Your task to perform on an android device: delete browsing data in the chrome app Image 0: 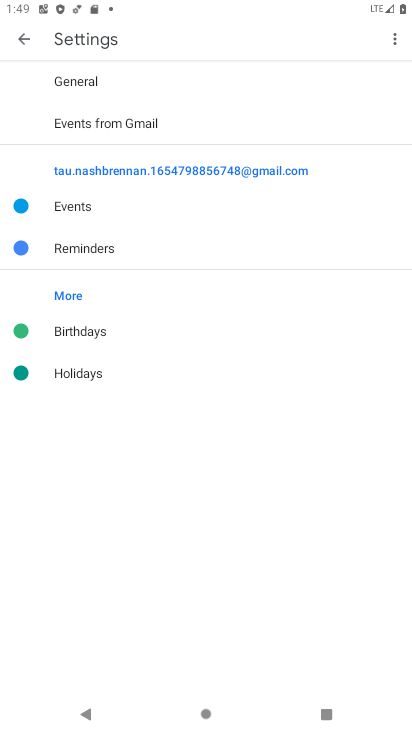
Step 0: press home button
Your task to perform on an android device: delete browsing data in the chrome app Image 1: 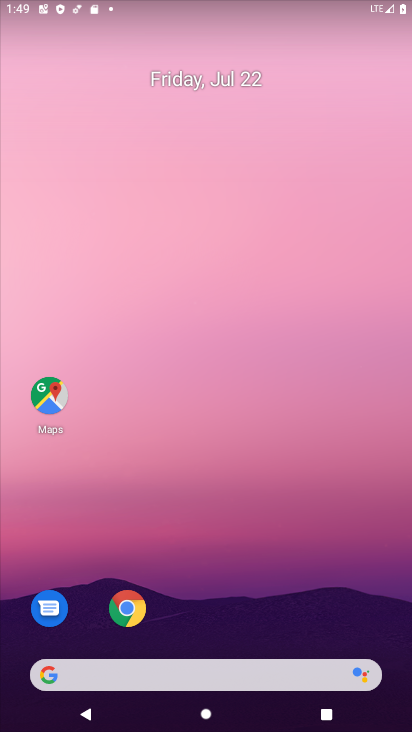
Step 1: drag from (249, 723) to (280, 152)
Your task to perform on an android device: delete browsing data in the chrome app Image 2: 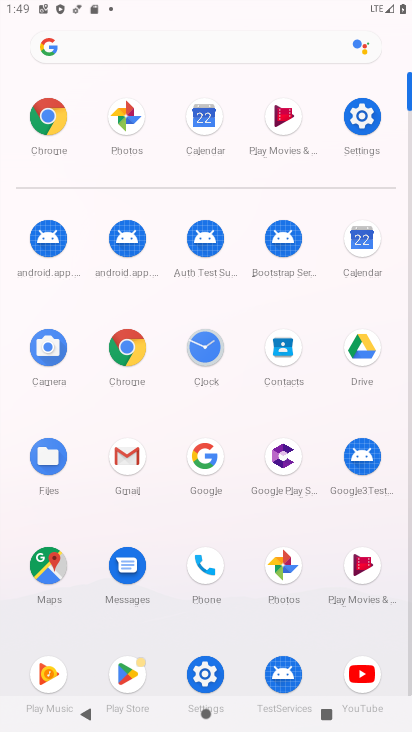
Step 2: click (123, 349)
Your task to perform on an android device: delete browsing data in the chrome app Image 3: 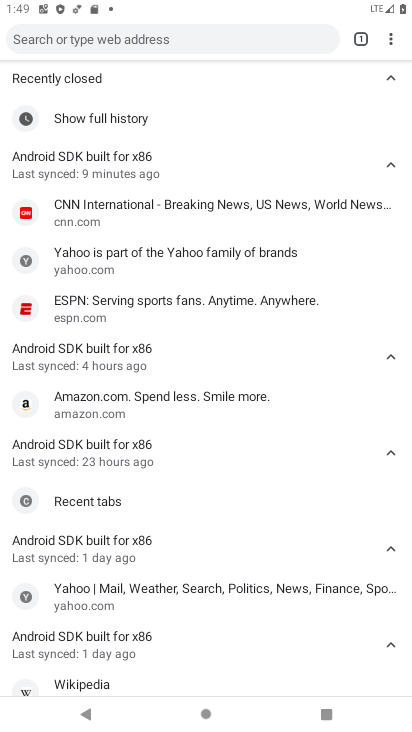
Step 3: click (388, 44)
Your task to perform on an android device: delete browsing data in the chrome app Image 4: 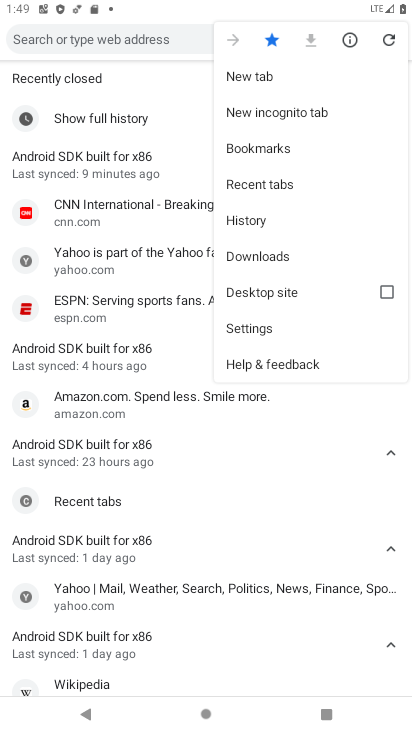
Step 4: click (254, 221)
Your task to perform on an android device: delete browsing data in the chrome app Image 5: 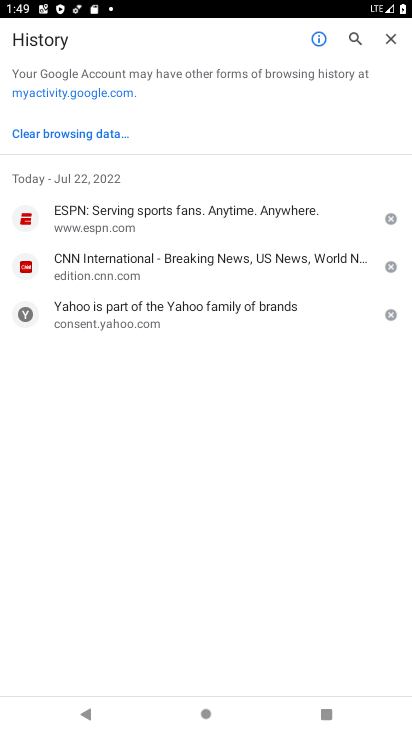
Step 5: click (70, 131)
Your task to perform on an android device: delete browsing data in the chrome app Image 6: 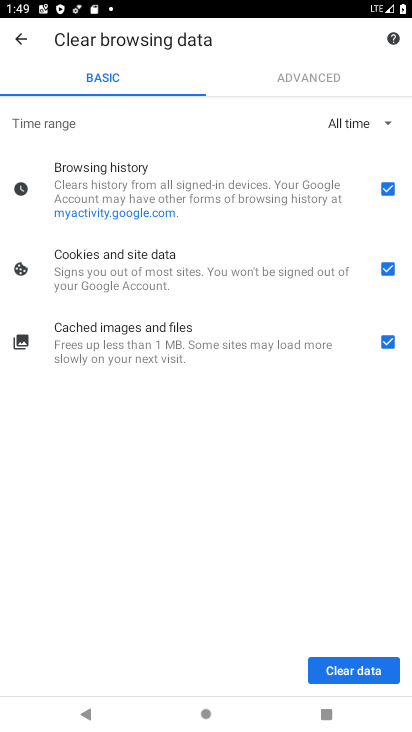
Step 6: click (386, 330)
Your task to perform on an android device: delete browsing data in the chrome app Image 7: 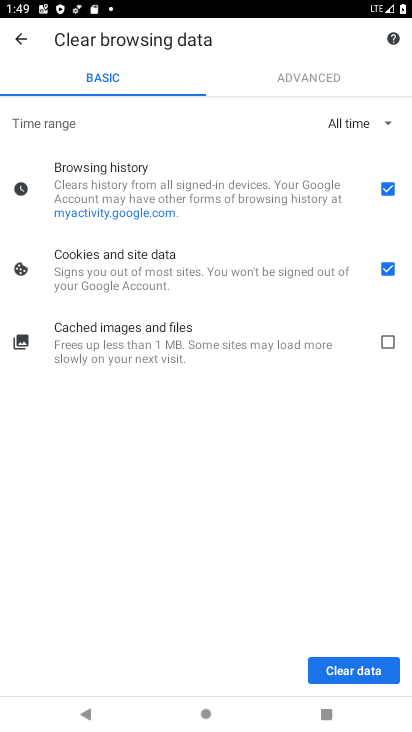
Step 7: click (386, 273)
Your task to perform on an android device: delete browsing data in the chrome app Image 8: 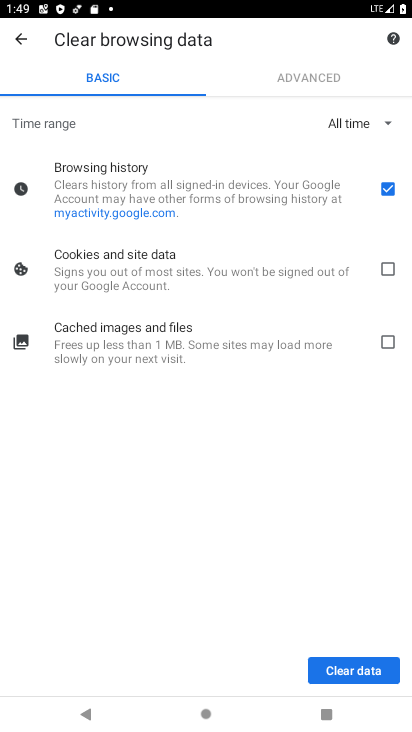
Step 8: click (361, 668)
Your task to perform on an android device: delete browsing data in the chrome app Image 9: 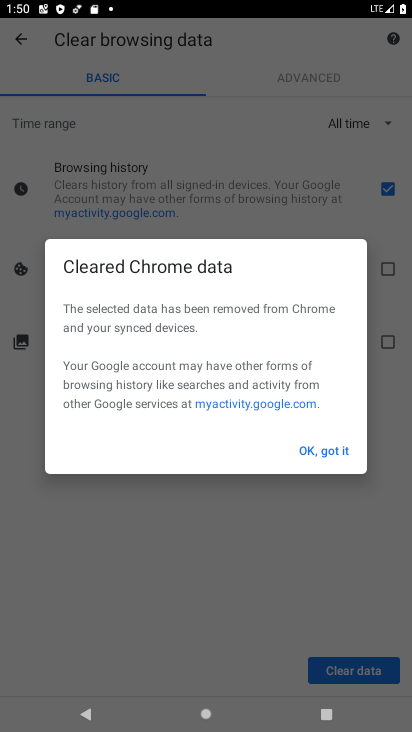
Step 9: click (332, 445)
Your task to perform on an android device: delete browsing data in the chrome app Image 10: 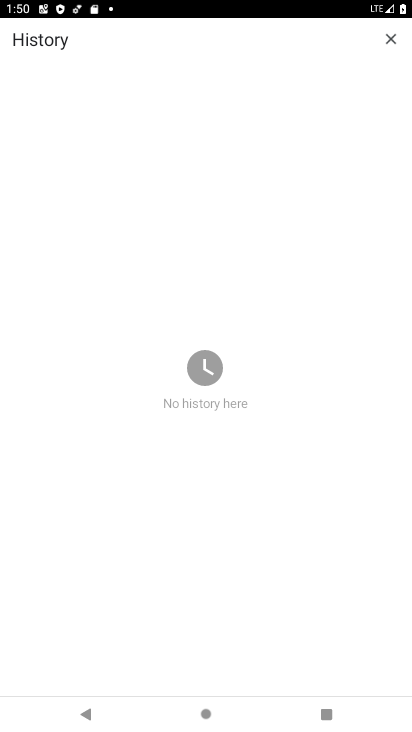
Step 10: task complete